Your task to perform on an android device: empty trash in the gmail app Image 0: 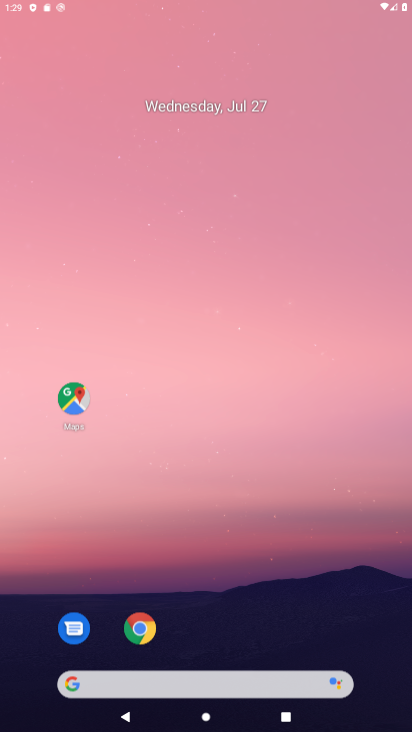
Step 0: press home button
Your task to perform on an android device: empty trash in the gmail app Image 1: 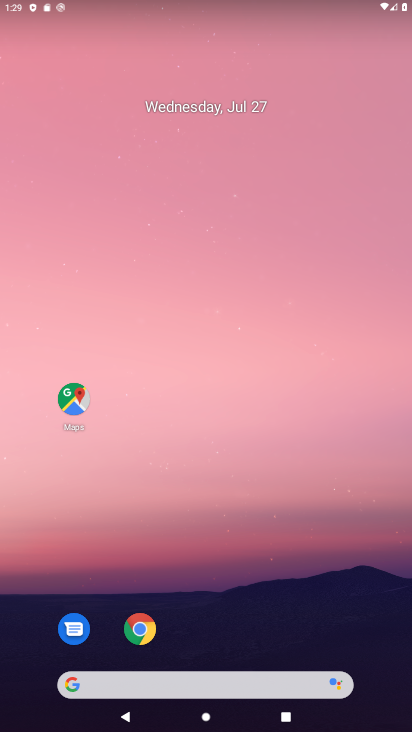
Step 1: drag from (234, 632) to (273, 136)
Your task to perform on an android device: empty trash in the gmail app Image 2: 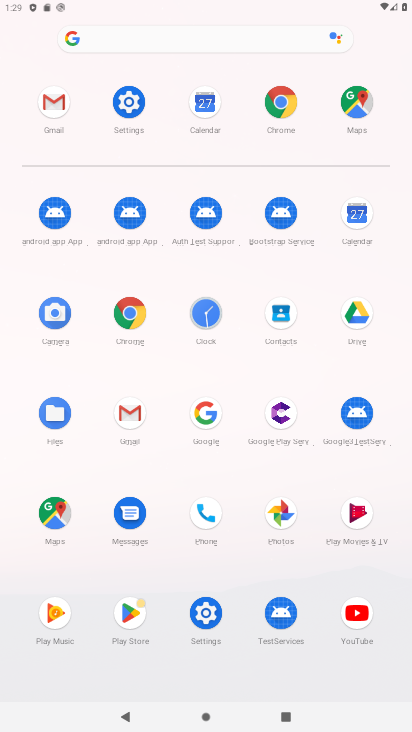
Step 2: click (55, 107)
Your task to perform on an android device: empty trash in the gmail app Image 3: 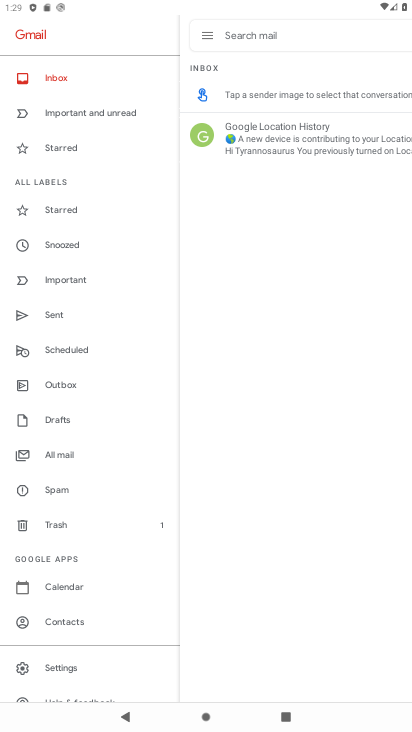
Step 3: drag from (208, 33) to (143, 278)
Your task to perform on an android device: empty trash in the gmail app Image 4: 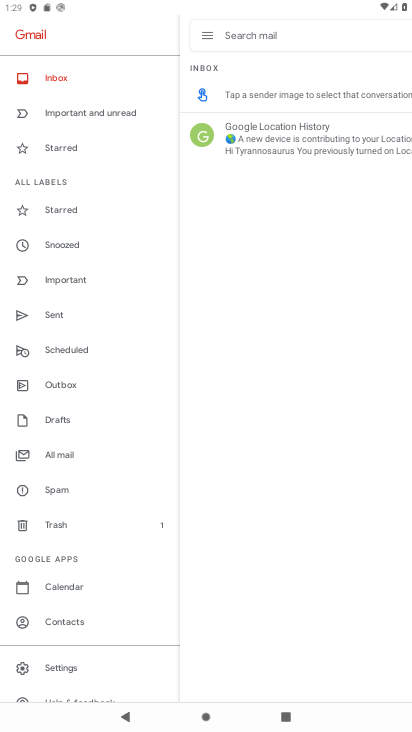
Step 4: click (37, 518)
Your task to perform on an android device: empty trash in the gmail app Image 5: 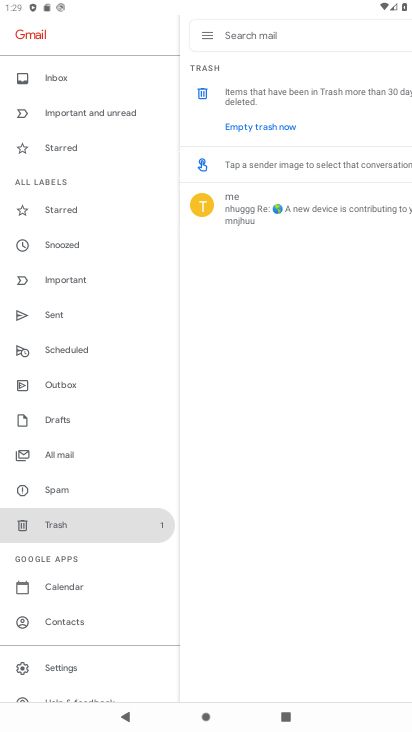
Step 5: click (200, 84)
Your task to perform on an android device: empty trash in the gmail app Image 6: 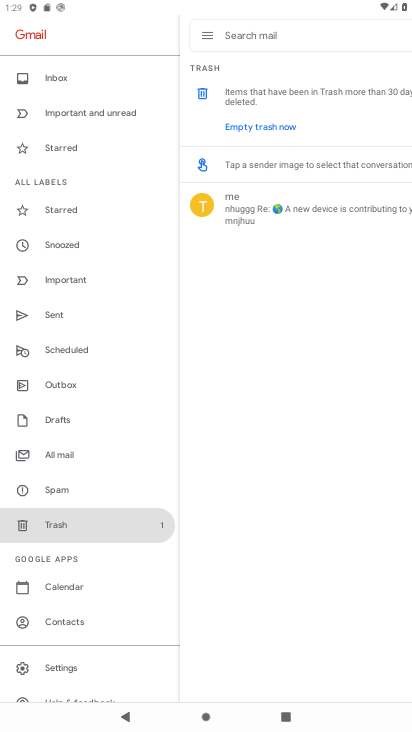
Step 6: click (255, 126)
Your task to perform on an android device: empty trash in the gmail app Image 7: 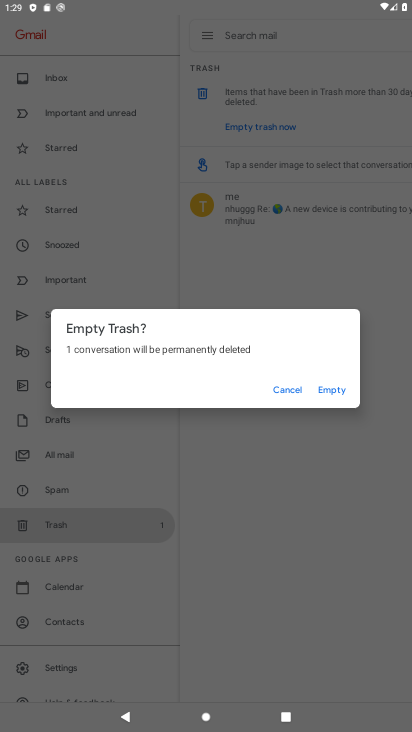
Step 7: click (336, 384)
Your task to perform on an android device: empty trash in the gmail app Image 8: 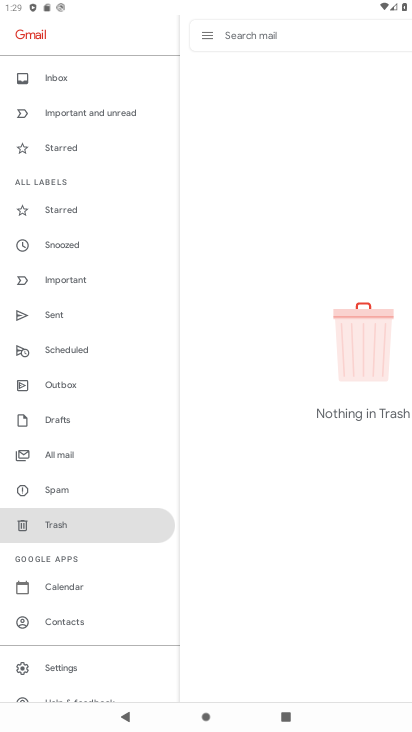
Step 8: task complete